Your task to perform on an android device: turn on airplane mode Image 0: 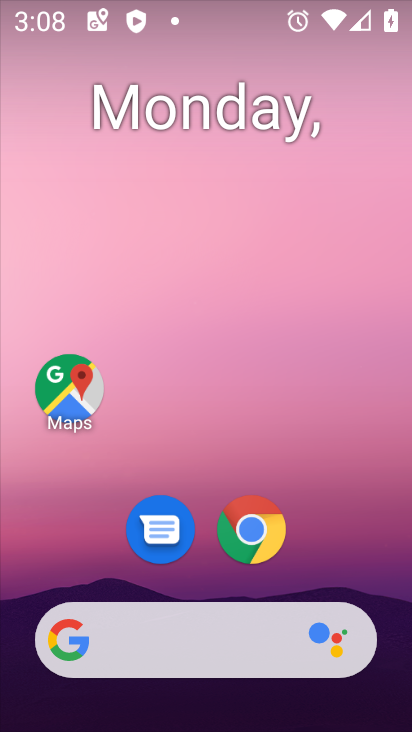
Step 0: drag from (329, 561) to (341, 74)
Your task to perform on an android device: turn on airplane mode Image 1: 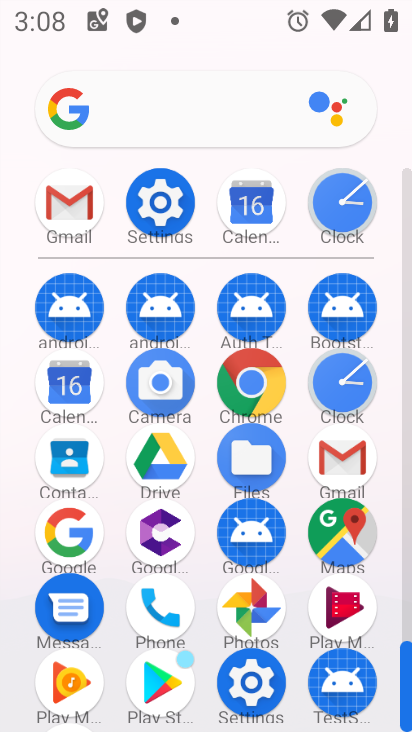
Step 1: click (168, 206)
Your task to perform on an android device: turn on airplane mode Image 2: 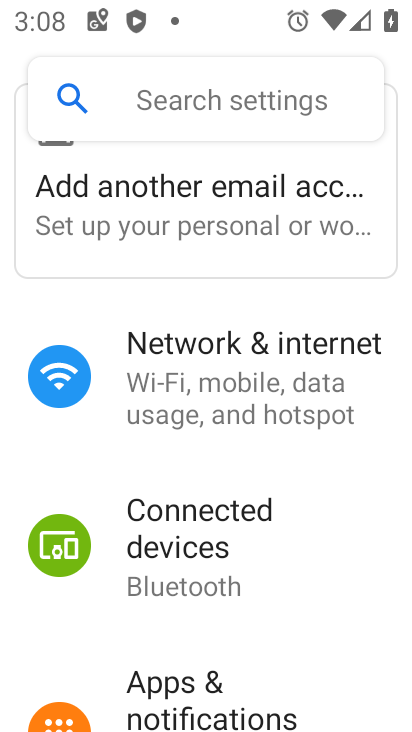
Step 2: click (193, 378)
Your task to perform on an android device: turn on airplane mode Image 3: 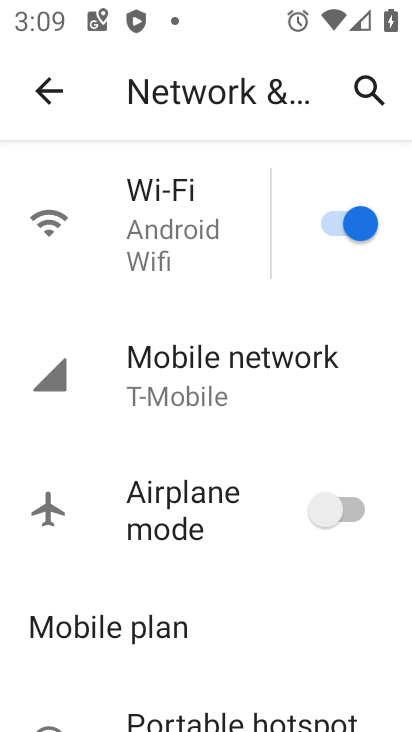
Step 3: click (337, 504)
Your task to perform on an android device: turn on airplane mode Image 4: 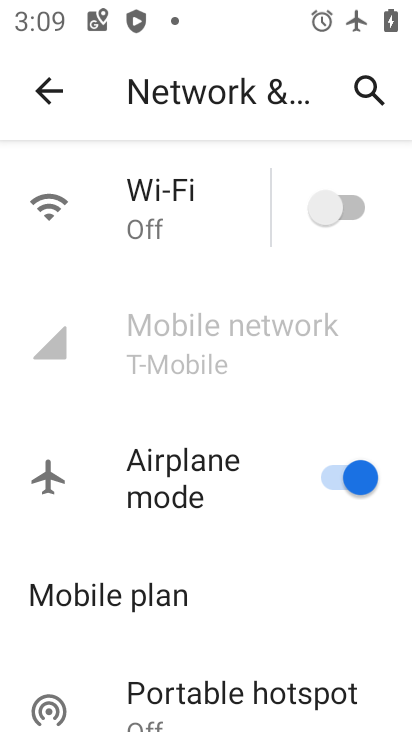
Step 4: task complete